Your task to perform on an android device: turn on data saver in the chrome app Image 0: 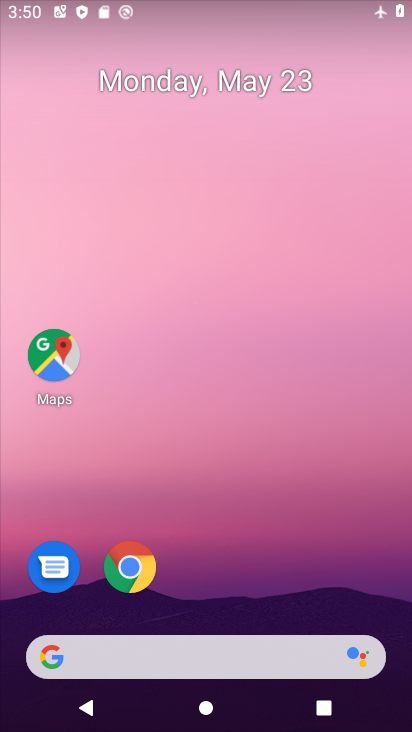
Step 0: click (126, 569)
Your task to perform on an android device: turn on data saver in the chrome app Image 1: 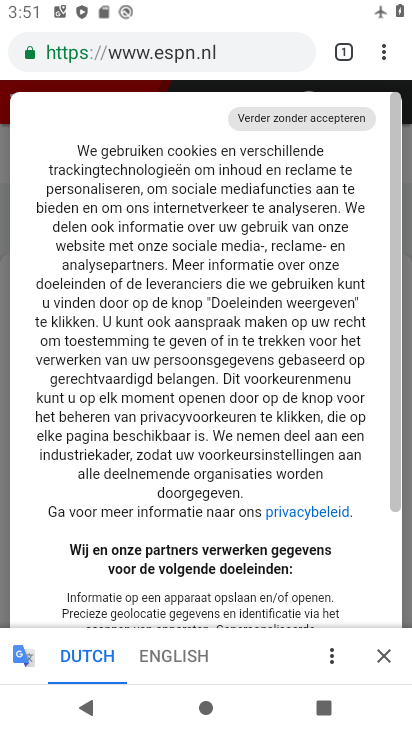
Step 1: click (380, 53)
Your task to perform on an android device: turn on data saver in the chrome app Image 2: 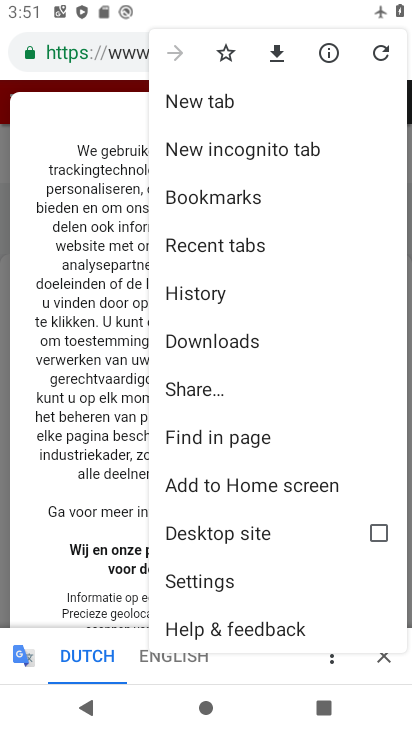
Step 2: drag from (318, 545) to (269, 232)
Your task to perform on an android device: turn on data saver in the chrome app Image 3: 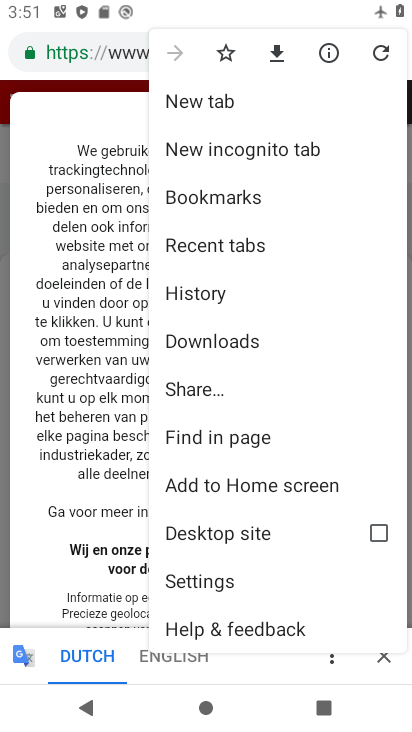
Step 3: click (222, 585)
Your task to perform on an android device: turn on data saver in the chrome app Image 4: 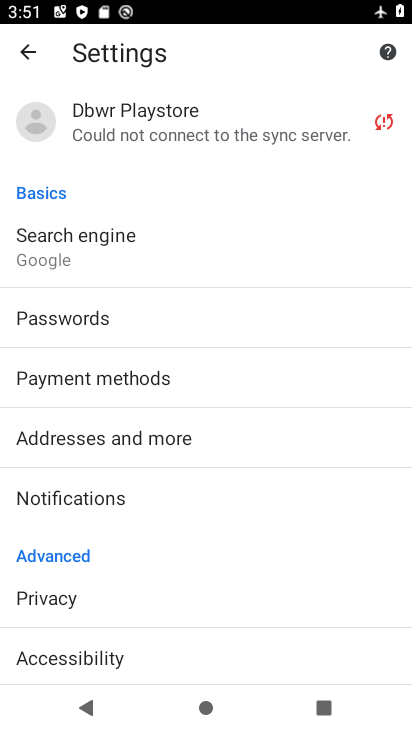
Step 4: drag from (184, 605) to (180, 246)
Your task to perform on an android device: turn on data saver in the chrome app Image 5: 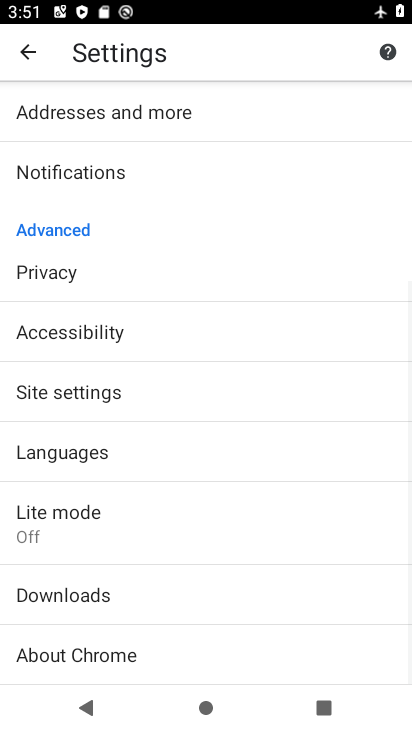
Step 5: click (54, 527)
Your task to perform on an android device: turn on data saver in the chrome app Image 6: 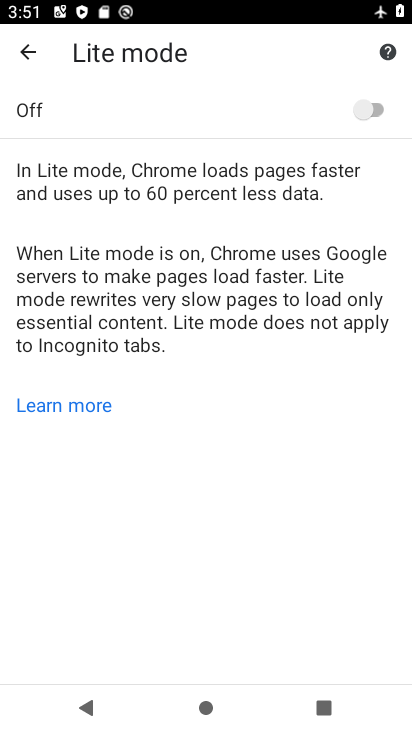
Step 6: click (374, 109)
Your task to perform on an android device: turn on data saver in the chrome app Image 7: 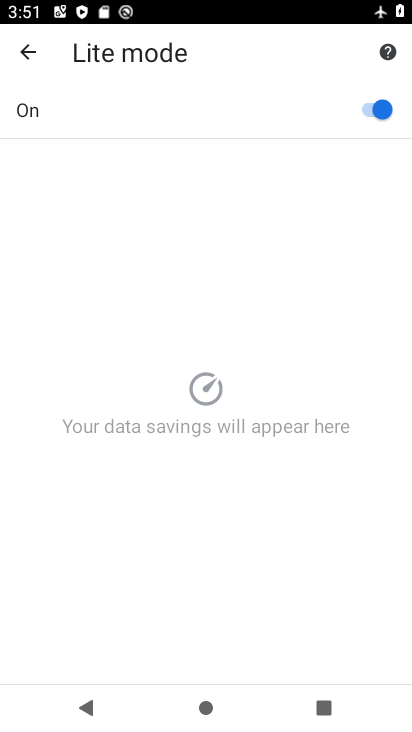
Step 7: task complete